Your task to perform on an android device: Show me the alarms in the clock app Image 0: 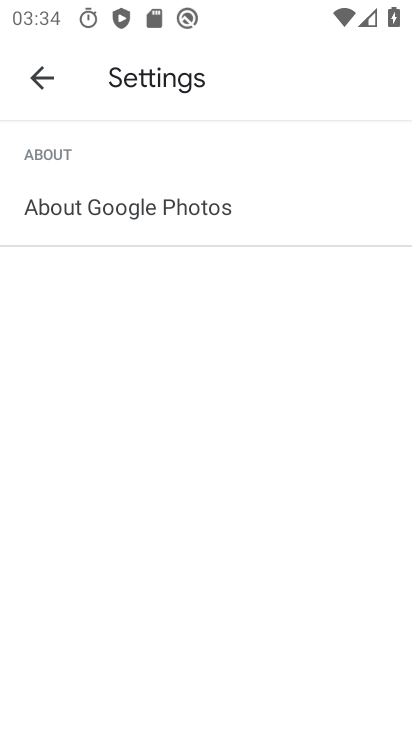
Step 0: press back button
Your task to perform on an android device: Show me the alarms in the clock app Image 1: 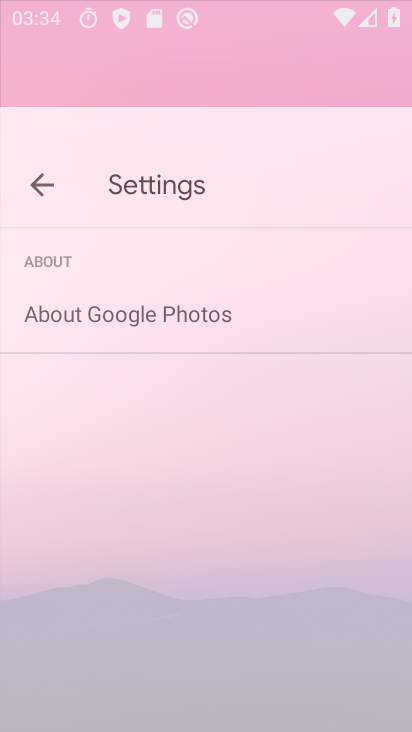
Step 1: press back button
Your task to perform on an android device: Show me the alarms in the clock app Image 2: 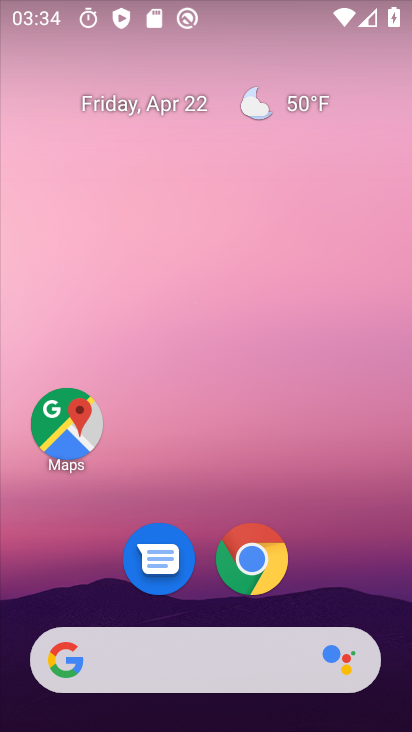
Step 2: drag from (184, 623) to (283, 67)
Your task to perform on an android device: Show me the alarms in the clock app Image 3: 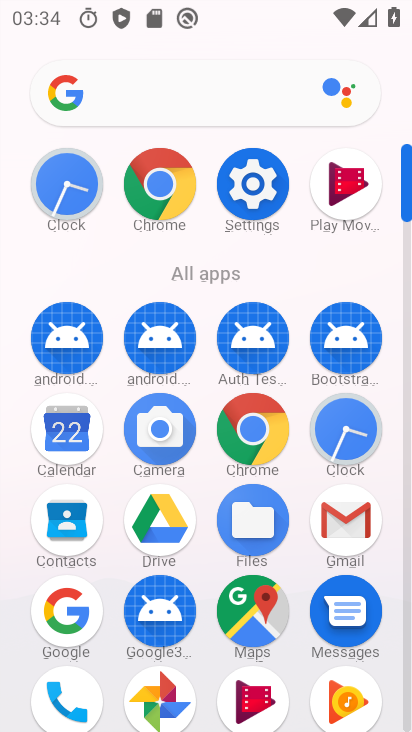
Step 3: click (330, 439)
Your task to perform on an android device: Show me the alarms in the clock app Image 4: 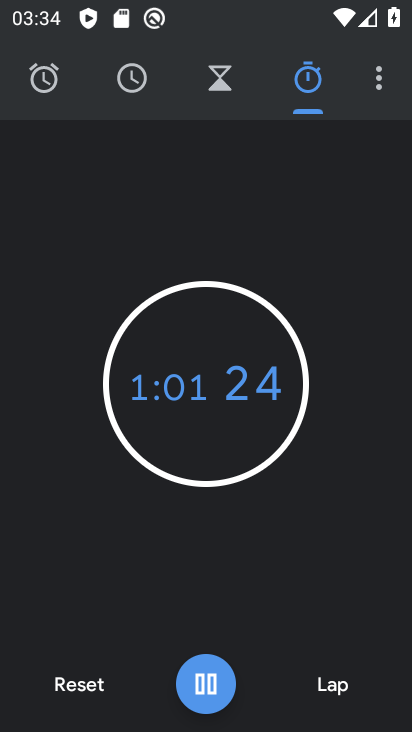
Step 4: click (37, 93)
Your task to perform on an android device: Show me the alarms in the clock app Image 5: 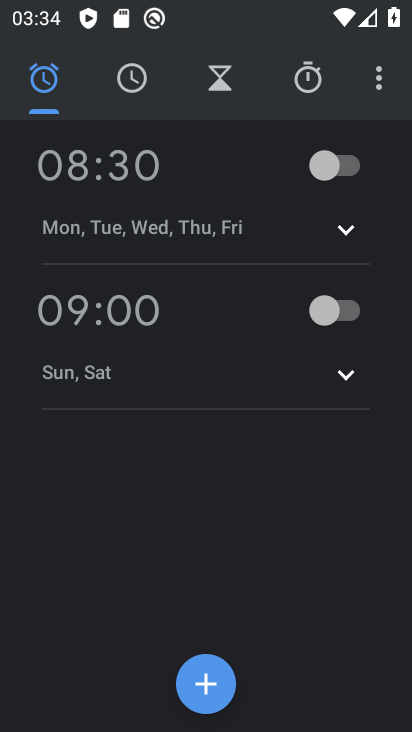
Step 5: task complete